Your task to perform on an android device: toggle improve location accuracy Image 0: 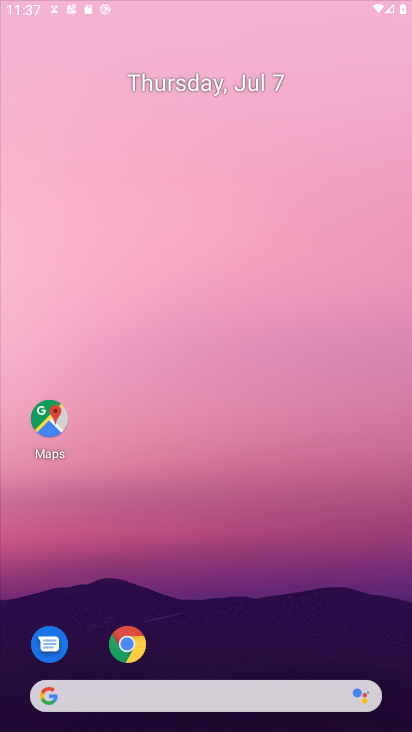
Step 0: press home button
Your task to perform on an android device: toggle improve location accuracy Image 1: 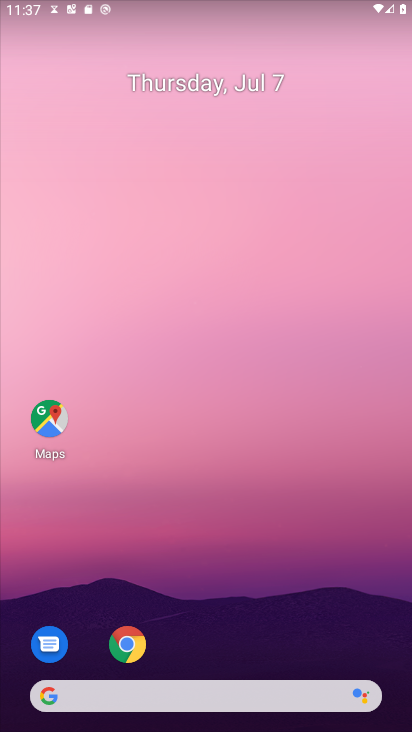
Step 1: press home button
Your task to perform on an android device: toggle improve location accuracy Image 2: 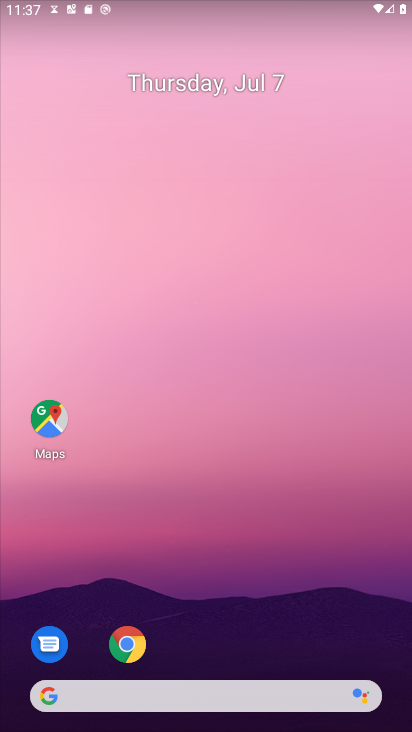
Step 2: drag from (261, 568) to (271, 50)
Your task to perform on an android device: toggle improve location accuracy Image 3: 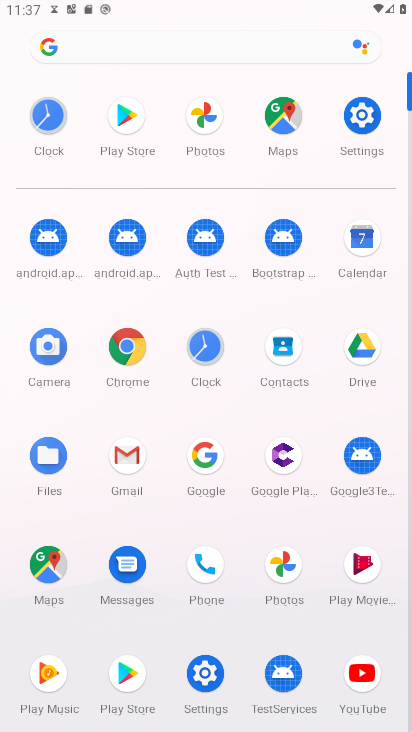
Step 3: click (351, 115)
Your task to perform on an android device: toggle improve location accuracy Image 4: 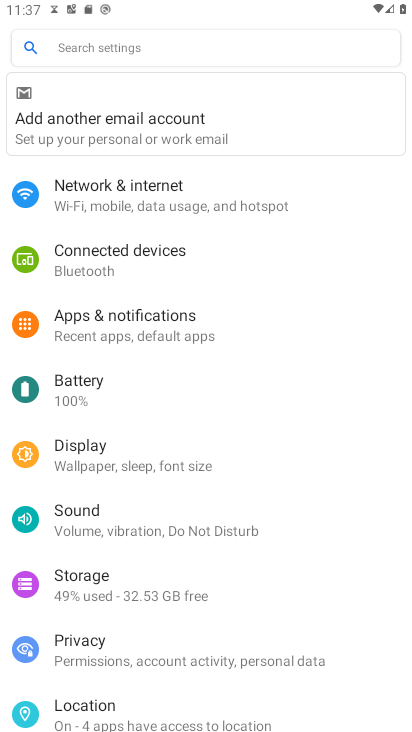
Step 4: click (106, 704)
Your task to perform on an android device: toggle improve location accuracy Image 5: 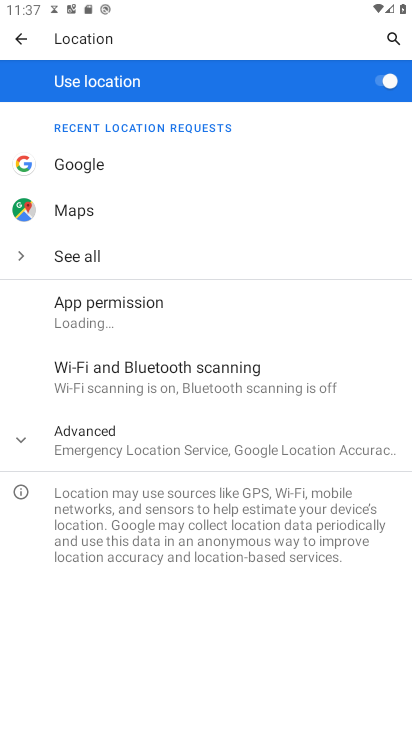
Step 5: click (23, 433)
Your task to perform on an android device: toggle improve location accuracy Image 6: 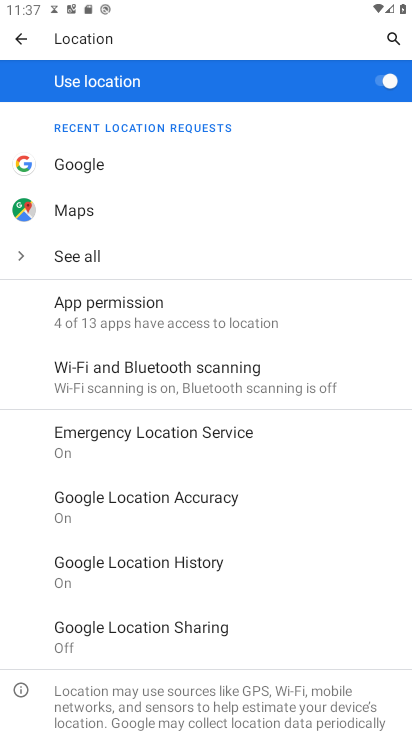
Step 6: click (181, 501)
Your task to perform on an android device: toggle improve location accuracy Image 7: 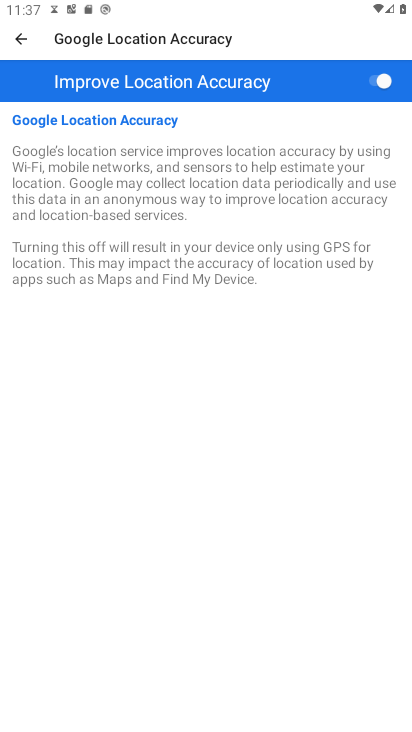
Step 7: click (380, 75)
Your task to perform on an android device: toggle improve location accuracy Image 8: 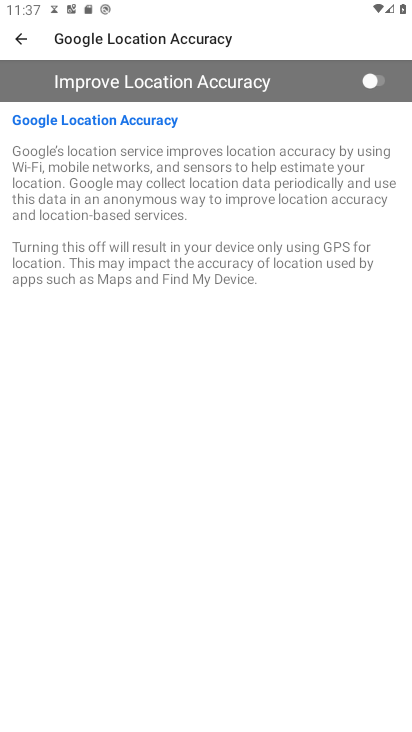
Step 8: task complete